Your task to perform on an android device: Open display settings Image 0: 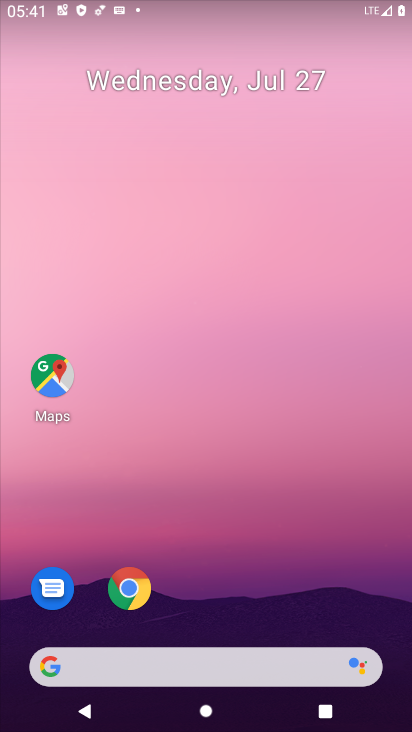
Step 0: drag from (264, 671) to (301, 27)
Your task to perform on an android device: Open display settings Image 1: 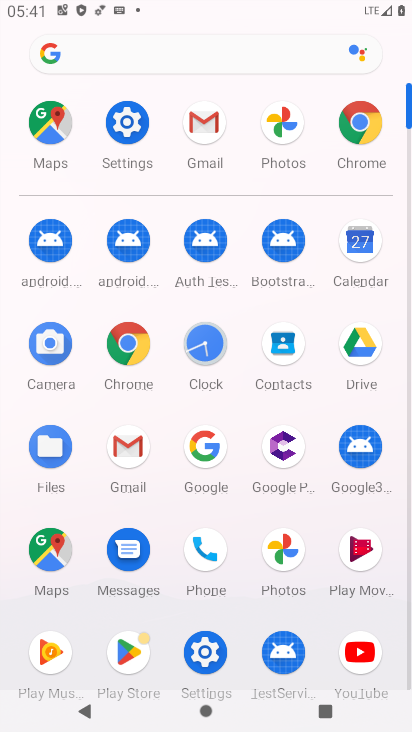
Step 1: click (137, 124)
Your task to perform on an android device: Open display settings Image 2: 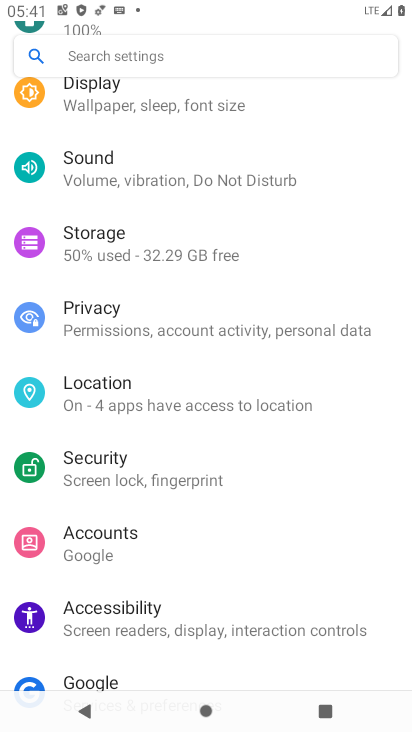
Step 2: click (140, 94)
Your task to perform on an android device: Open display settings Image 3: 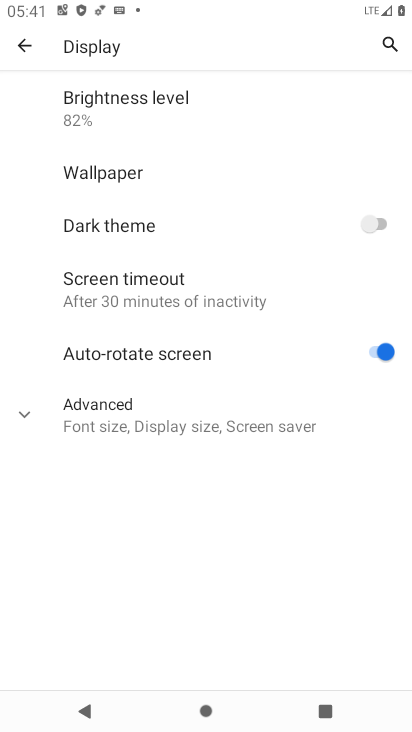
Step 3: task complete